Your task to perform on an android device: Open settings on Google Maps Image 0: 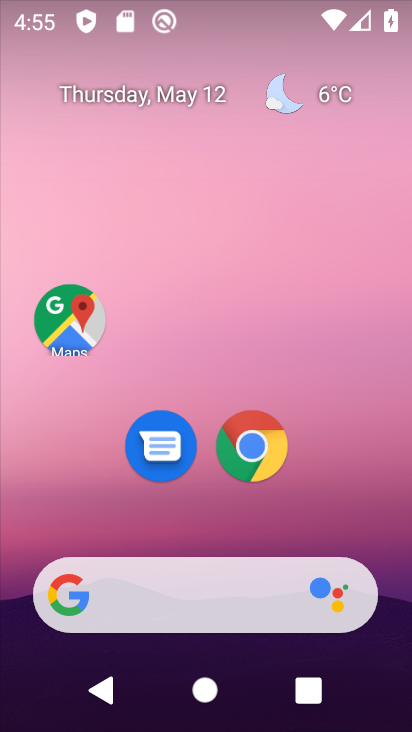
Step 0: click (61, 320)
Your task to perform on an android device: Open settings on Google Maps Image 1: 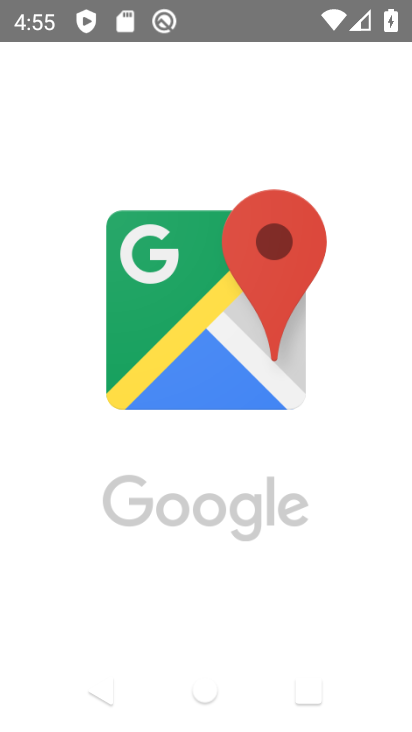
Step 1: press back button
Your task to perform on an android device: Open settings on Google Maps Image 2: 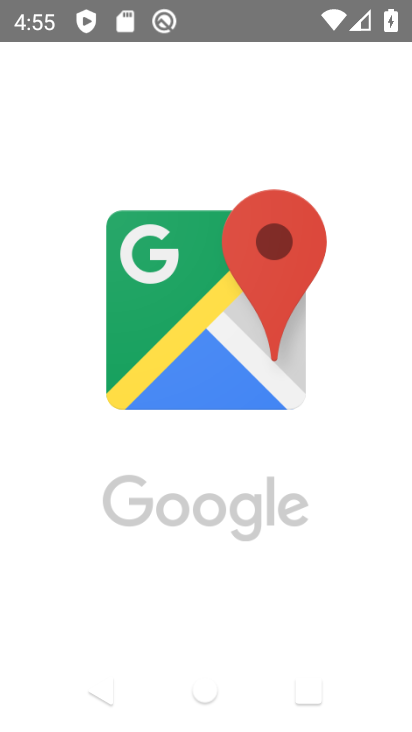
Step 2: press home button
Your task to perform on an android device: Open settings on Google Maps Image 3: 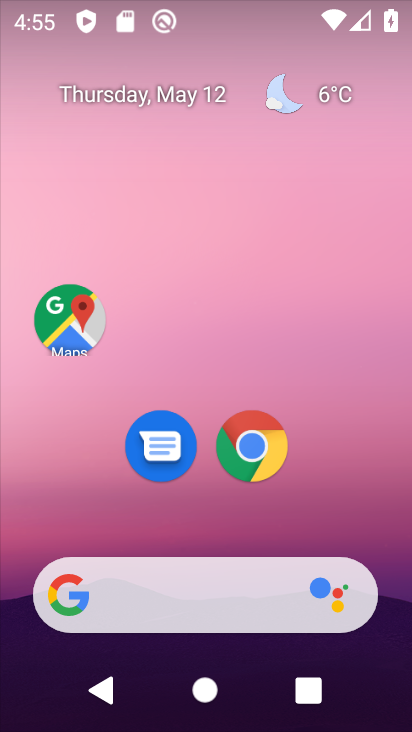
Step 3: drag from (172, 530) to (277, 63)
Your task to perform on an android device: Open settings on Google Maps Image 4: 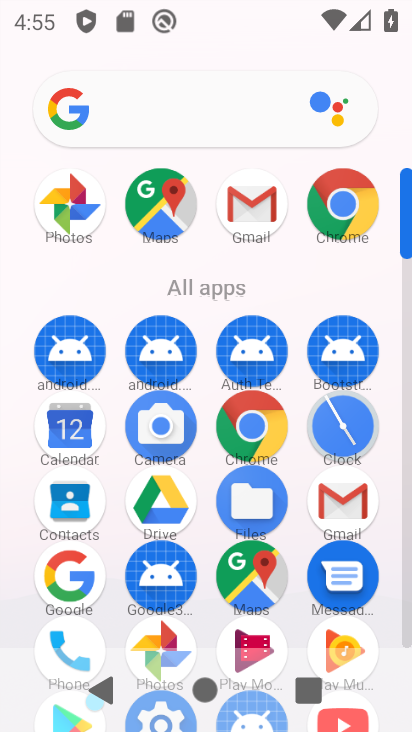
Step 4: click (165, 206)
Your task to perform on an android device: Open settings on Google Maps Image 5: 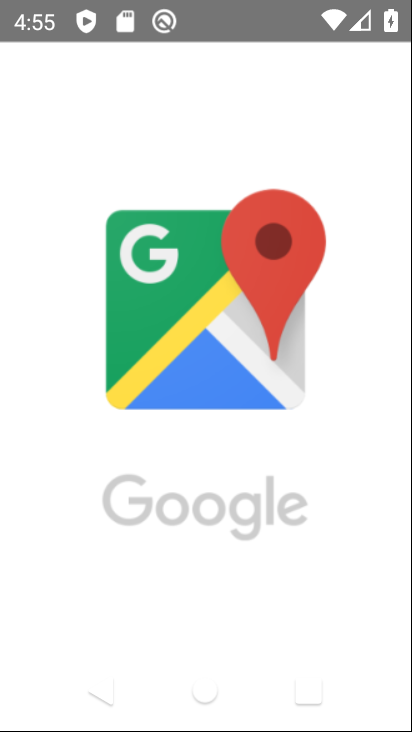
Step 5: task complete